Your task to perform on an android device: find photos in the google photos app Image 0: 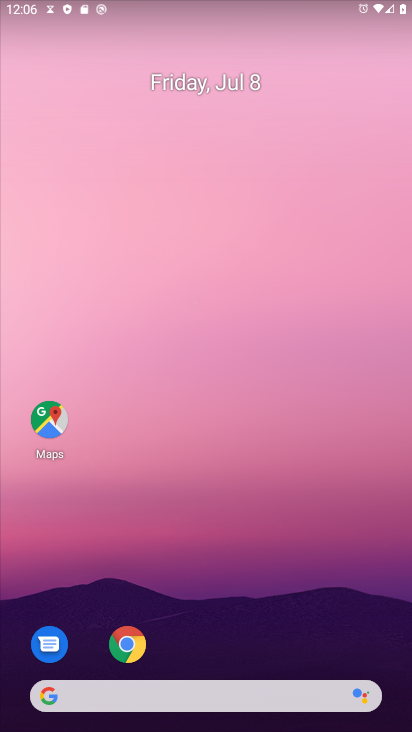
Step 0: drag from (223, 654) to (264, 20)
Your task to perform on an android device: find photos in the google photos app Image 1: 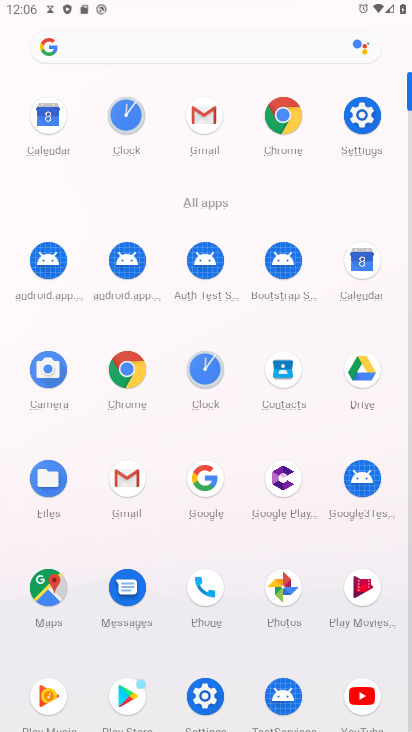
Step 1: click (282, 596)
Your task to perform on an android device: find photos in the google photos app Image 2: 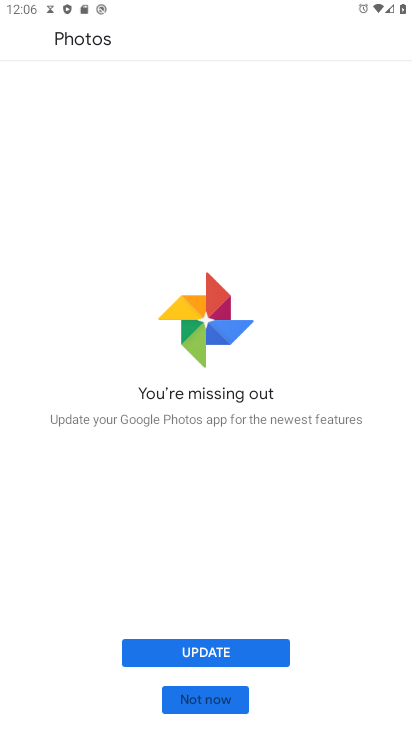
Step 2: click (204, 703)
Your task to perform on an android device: find photos in the google photos app Image 3: 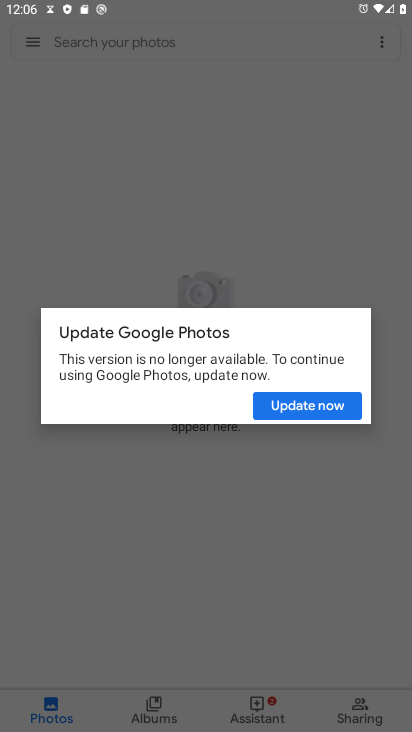
Step 3: click (277, 408)
Your task to perform on an android device: find photos in the google photos app Image 4: 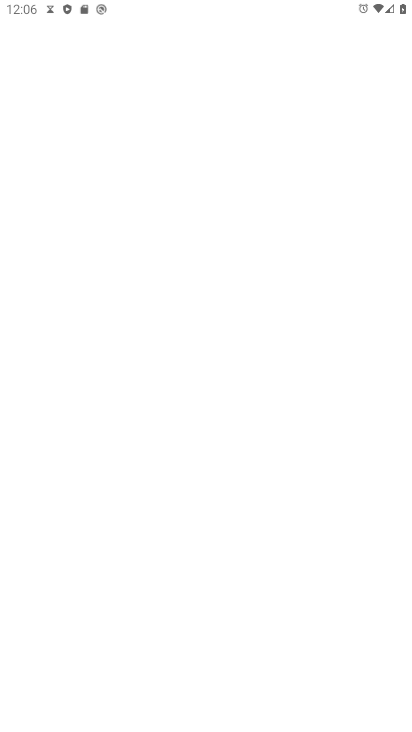
Step 4: task complete